Your task to perform on an android device: Open the calendar app, open the side menu, and click the "Day" option Image 0: 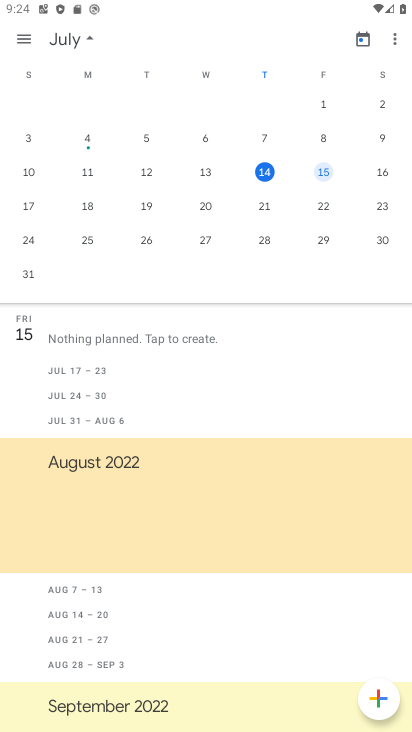
Step 0: press back button
Your task to perform on an android device: Open the calendar app, open the side menu, and click the "Day" option Image 1: 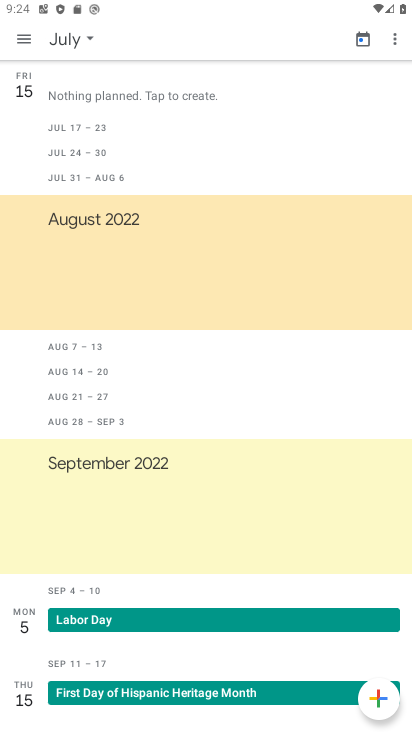
Step 1: press back button
Your task to perform on an android device: Open the calendar app, open the side menu, and click the "Day" option Image 2: 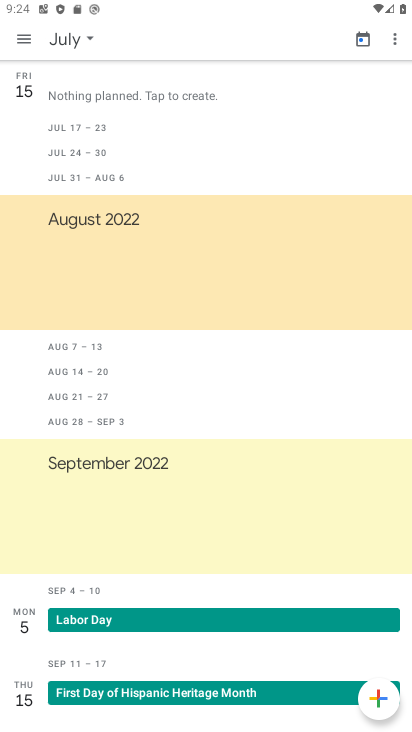
Step 2: press back button
Your task to perform on an android device: Open the calendar app, open the side menu, and click the "Day" option Image 3: 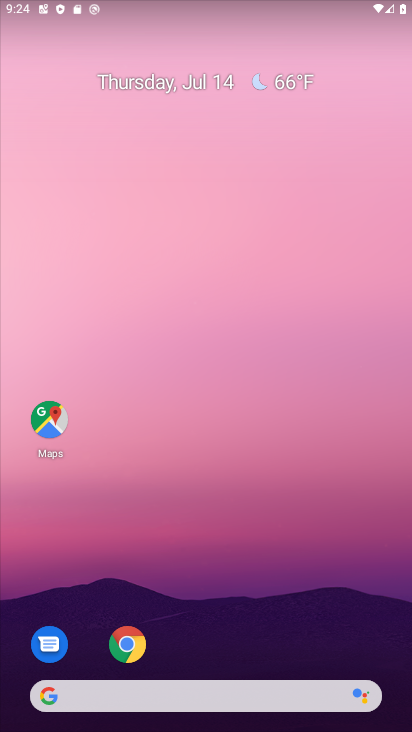
Step 3: drag from (224, 418) to (146, 1)
Your task to perform on an android device: Open the calendar app, open the side menu, and click the "Day" option Image 4: 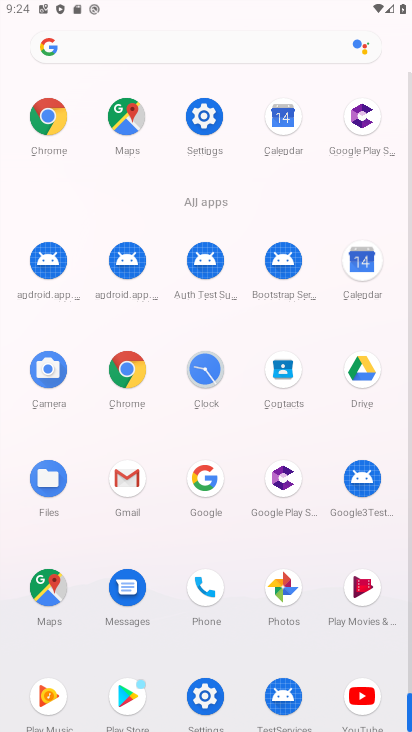
Step 4: click (360, 263)
Your task to perform on an android device: Open the calendar app, open the side menu, and click the "Day" option Image 5: 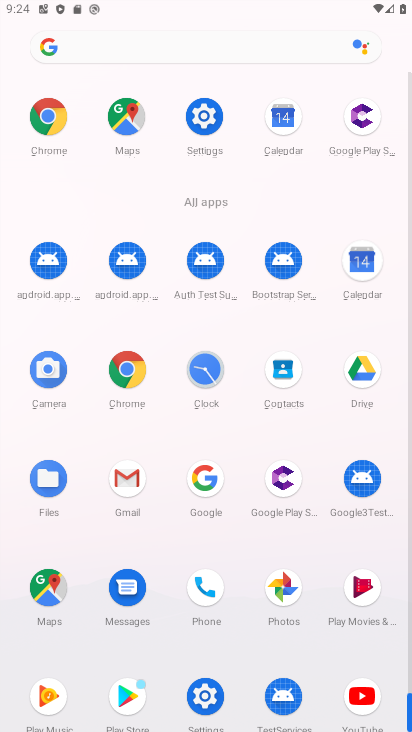
Step 5: click (364, 258)
Your task to perform on an android device: Open the calendar app, open the side menu, and click the "Day" option Image 6: 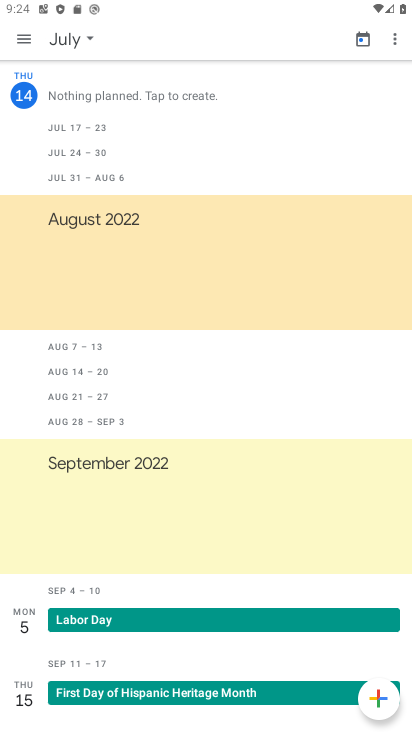
Step 6: drag from (27, 35) to (80, 401)
Your task to perform on an android device: Open the calendar app, open the side menu, and click the "Day" option Image 7: 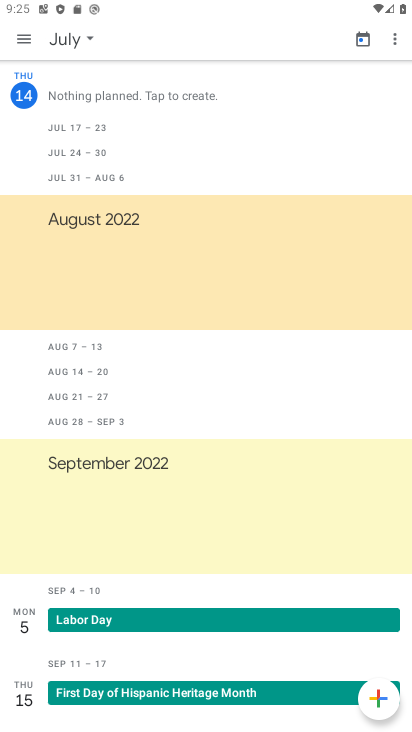
Step 7: drag from (25, 36) to (56, 231)
Your task to perform on an android device: Open the calendar app, open the side menu, and click the "Day" option Image 8: 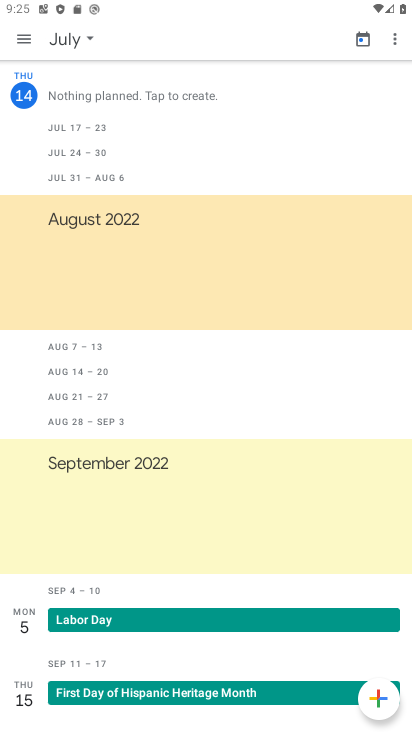
Step 8: click (19, 53)
Your task to perform on an android device: Open the calendar app, open the side menu, and click the "Day" option Image 9: 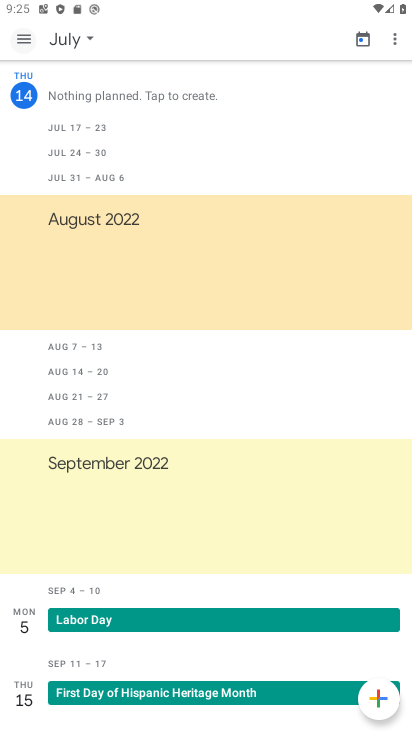
Step 9: click (22, 40)
Your task to perform on an android device: Open the calendar app, open the side menu, and click the "Day" option Image 10: 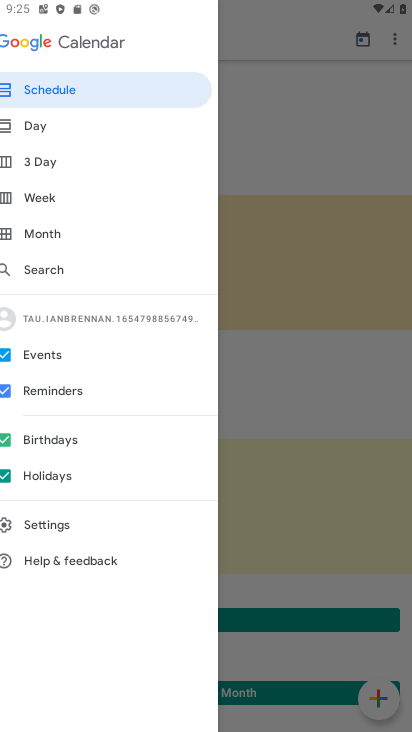
Step 10: click (22, 40)
Your task to perform on an android device: Open the calendar app, open the side menu, and click the "Day" option Image 11: 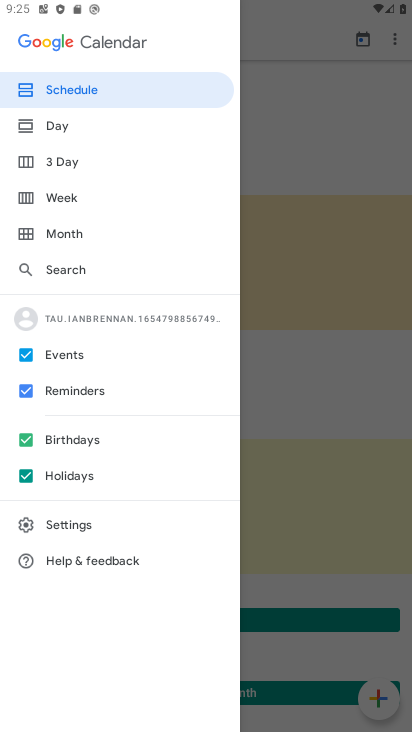
Step 11: click (54, 124)
Your task to perform on an android device: Open the calendar app, open the side menu, and click the "Day" option Image 12: 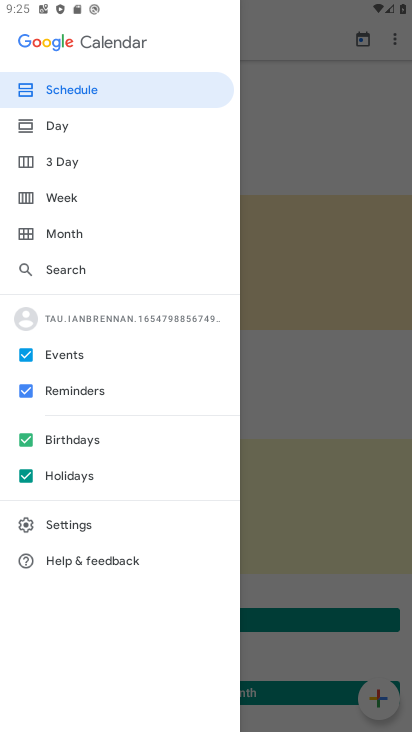
Step 12: click (54, 124)
Your task to perform on an android device: Open the calendar app, open the side menu, and click the "Day" option Image 13: 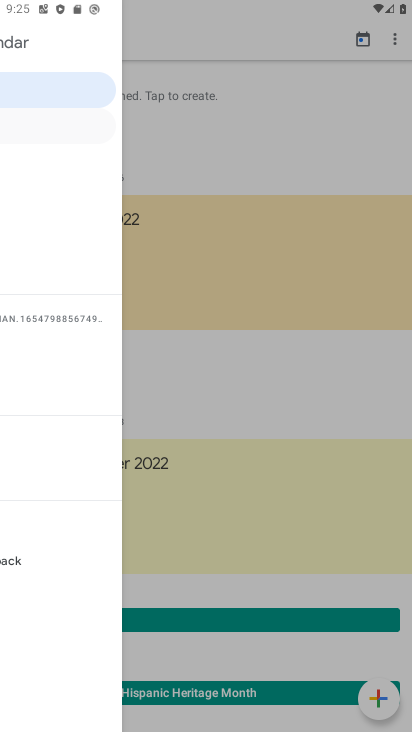
Step 13: click (54, 124)
Your task to perform on an android device: Open the calendar app, open the side menu, and click the "Day" option Image 14: 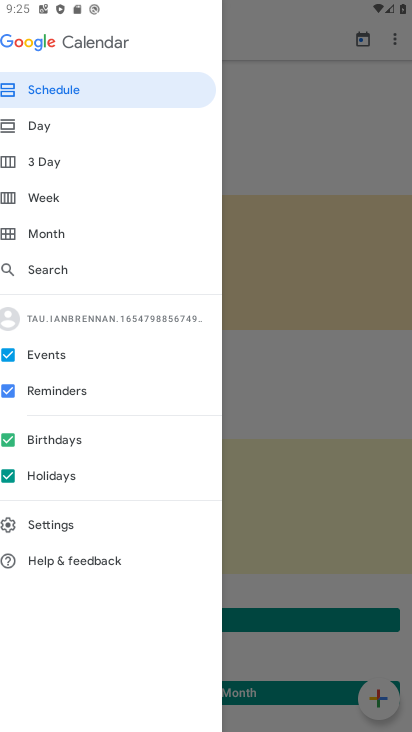
Step 14: click (55, 122)
Your task to perform on an android device: Open the calendar app, open the side menu, and click the "Day" option Image 15: 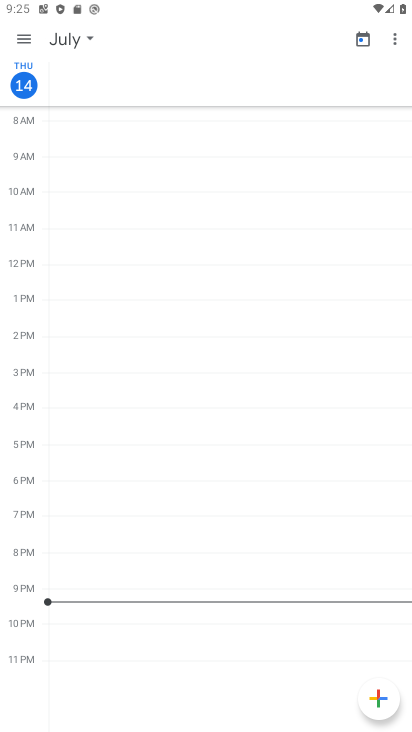
Step 15: click (26, 37)
Your task to perform on an android device: Open the calendar app, open the side menu, and click the "Day" option Image 16: 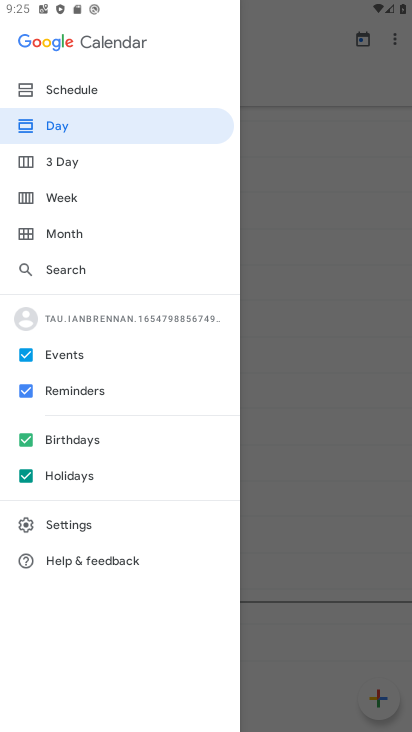
Step 16: task complete